Your task to perform on an android device: choose inbox layout in the gmail app Image 0: 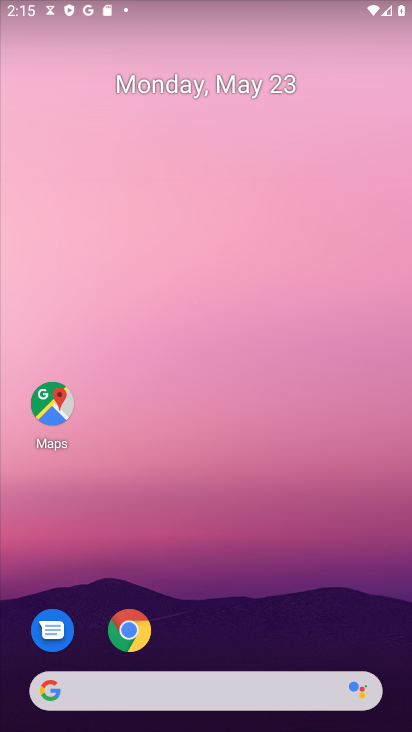
Step 0: drag from (296, 442) to (276, 159)
Your task to perform on an android device: choose inbox layout in the gmail app Image 1: 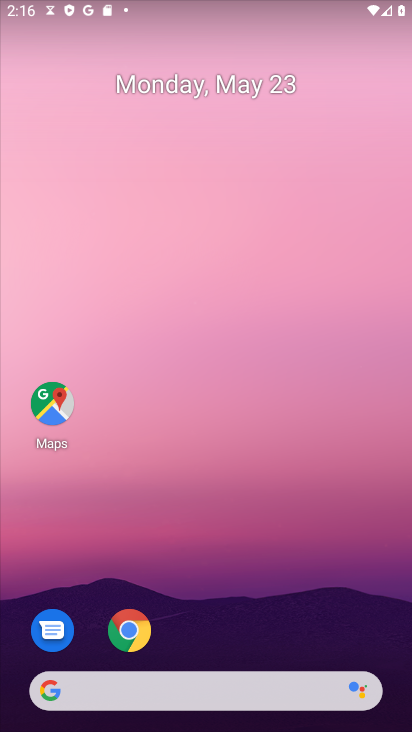
Step 1: drag from (219, 377) to (193, 248)
Your task to perform on an android device: choose inbox layout in the gmail app Image 2: 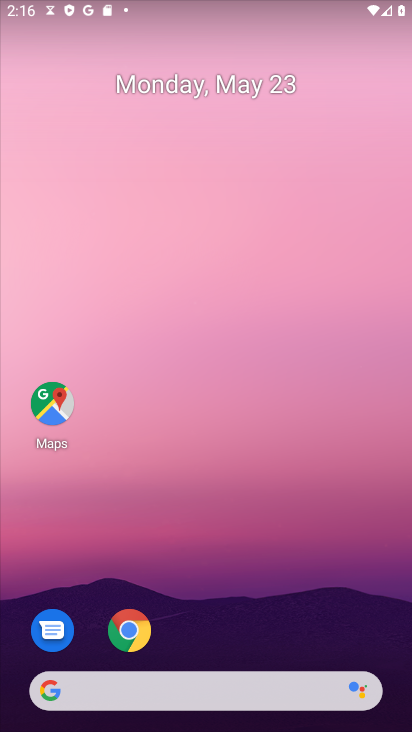
Step 2: drag from (263, 586) to (285, 147)
Your task to perform on an android device: choose inbox layout in the gmail app Image 3: 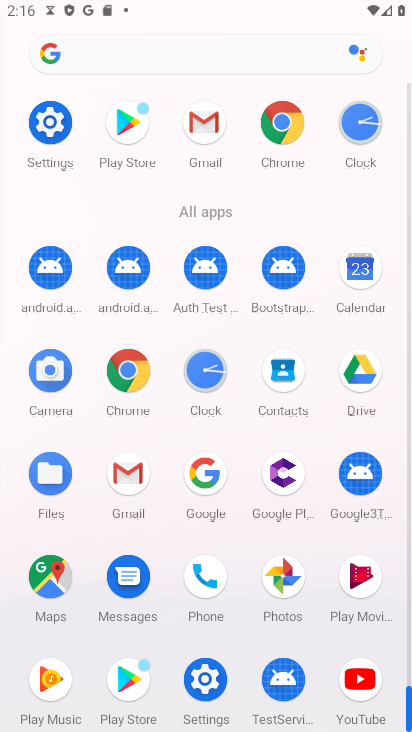
Step 3: click (204, 118)
Your task to perform on an android device: choose inbox layout in the gmail app Image 4: 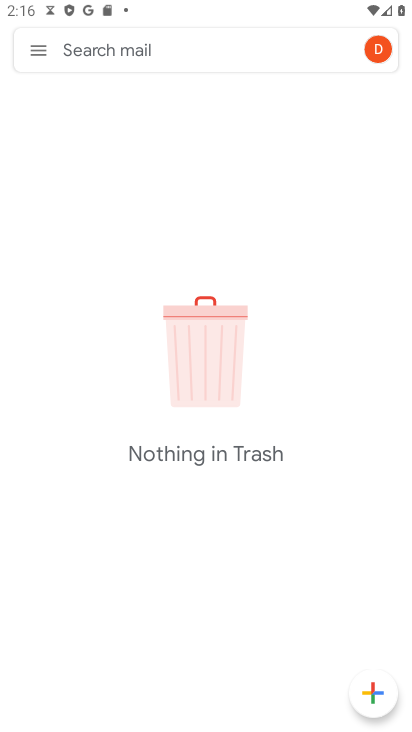
Step 4: click (30, 47)
Your task to perform on an android device: choose inbox layout in the gmail app Image 5: 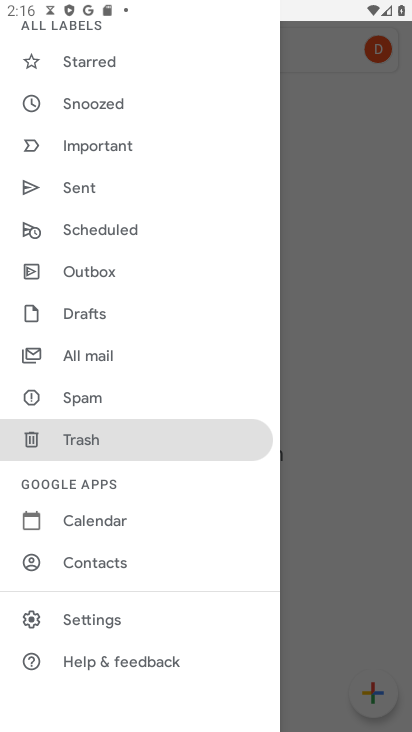
Step 5: click (109, 621)
Your task to perform on an android device: choose inbox layout in the gmail app Image 6: 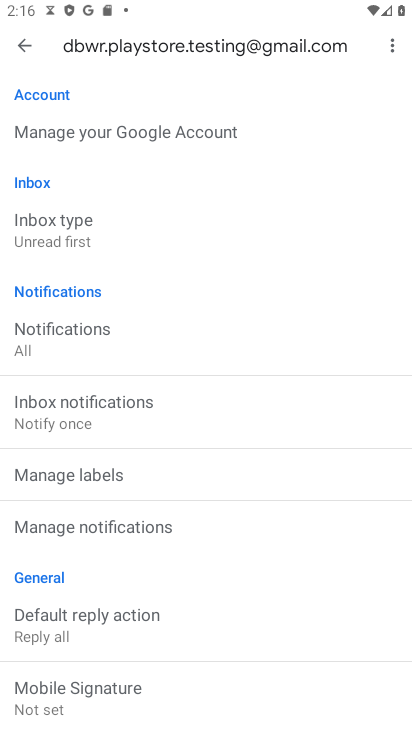
Step 6: drag from (184, 251) to (136, 570)
Your task to perform on an android device: choose inbox layout in the gmail app Image 7: 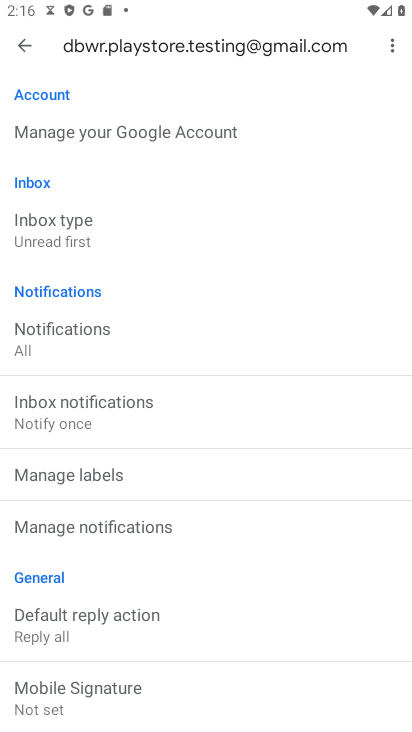
Step 7: drag from (140, 247) to (95, 636)
Your task to perform on an android device: choose inbox layout in the gmail app Image 8: 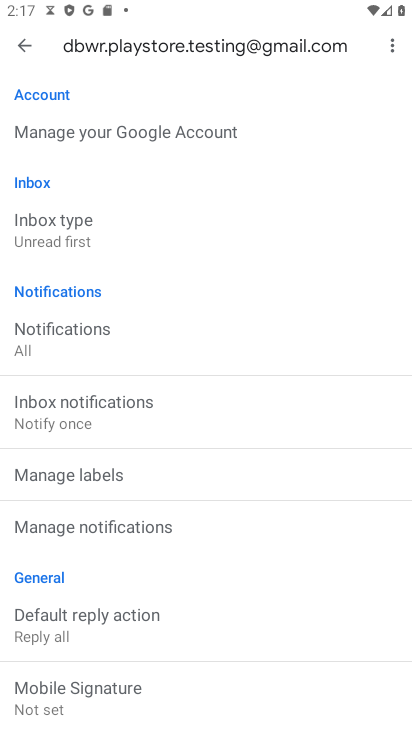
Step 8: click (35, 246)
Your task to perform on an android device: choose inbox layout in the gmail app Image 9: 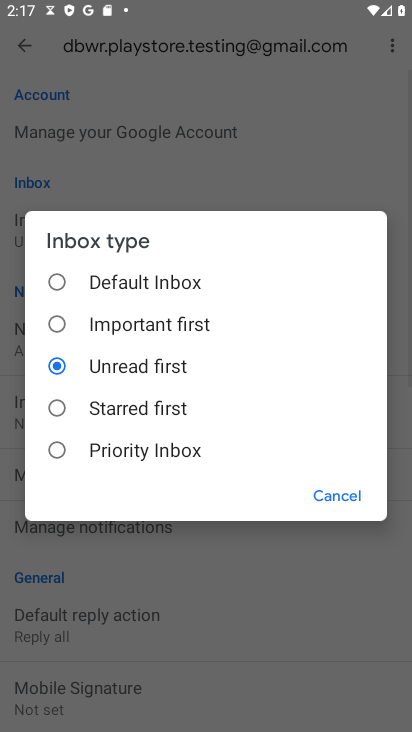
Step 9: click (77, 329)
Your task to perform on an android device: choose inbox layout in the gmail app Image 10: 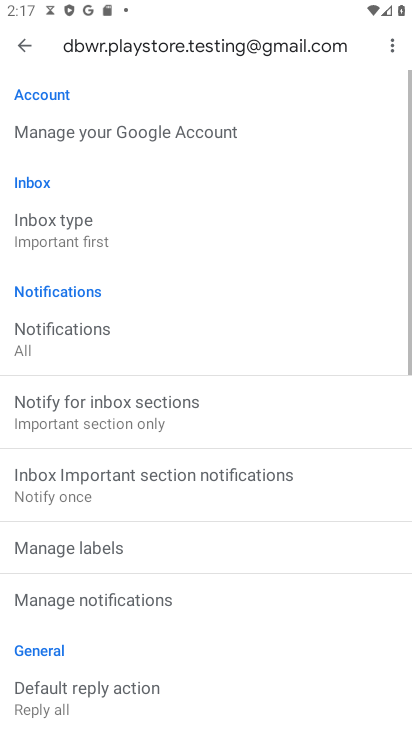
Step 10: task complete